Your task to perform on an android device: Search for vegetarian restaurants on Maps Image 0: 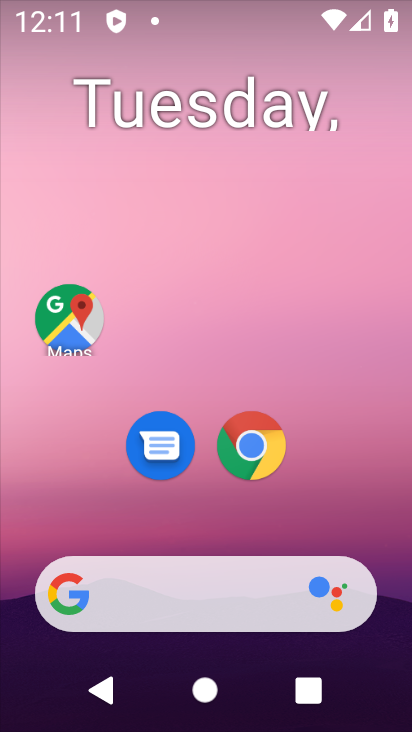
Step 0: drag from (382, 536) to (380, 271)
Your task to perform on an android device: Search for vegetarian restaurants on Maps Image 1: 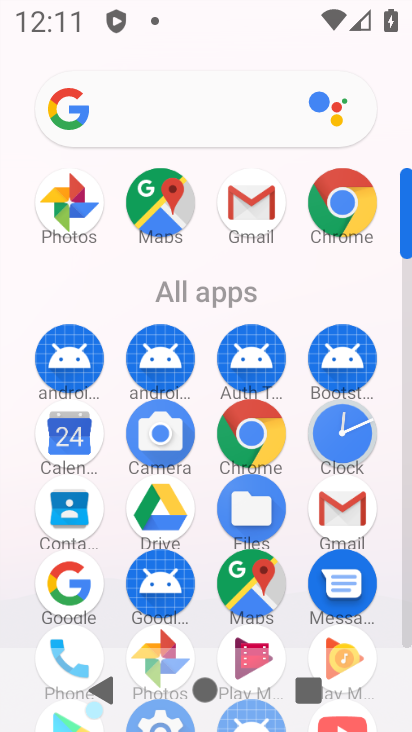
Step 1: drag from (391, 614) to (384, 540)
Your task to perform on an android device: Search for vegetarian restaurants on Maps Image 2: 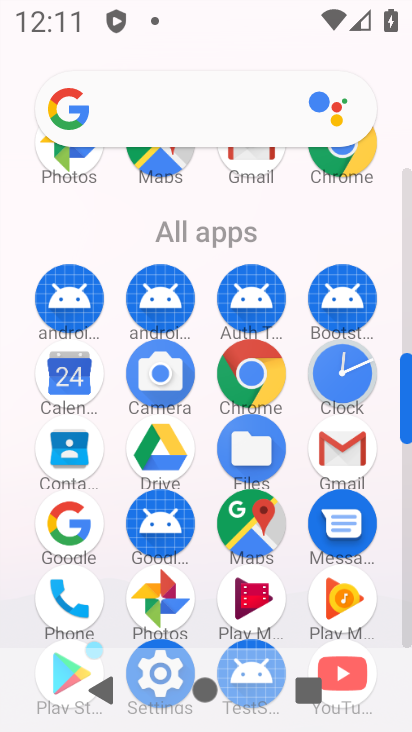
Step 2: drag from (383, 608) to (377, 471)
Your task to perform on an android device: Search for vegetarian restaurants on Maps Image 3: 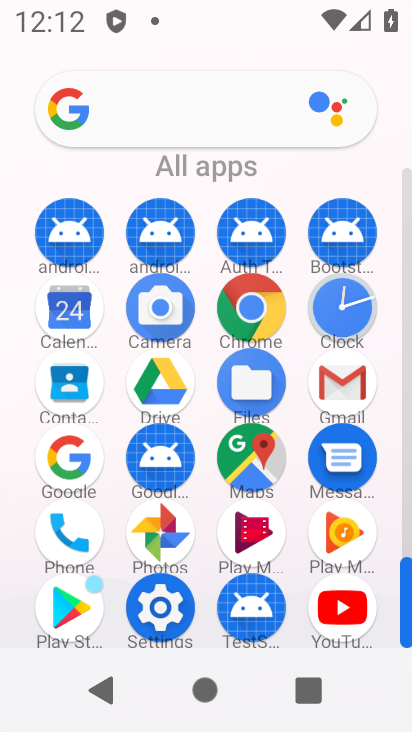
Step 3: click (263, 465)
Your task to perform on an android device: Search for vegetarian restaurants on Maps Image 4: 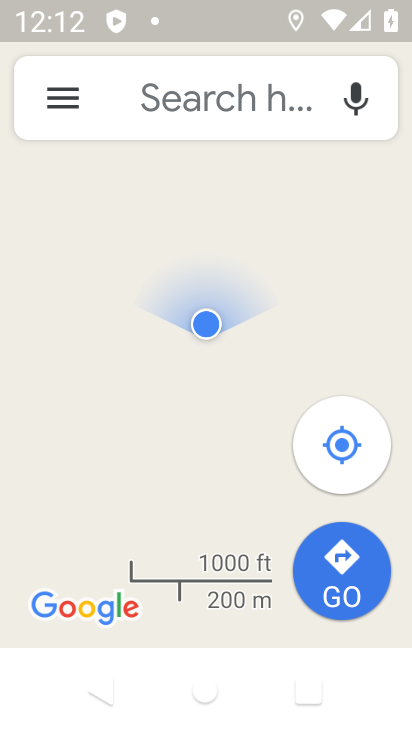
Step 4: click (241, 107)
Your task to perform on an android device: Search for vegetarian restaurants on Maps Image 5: 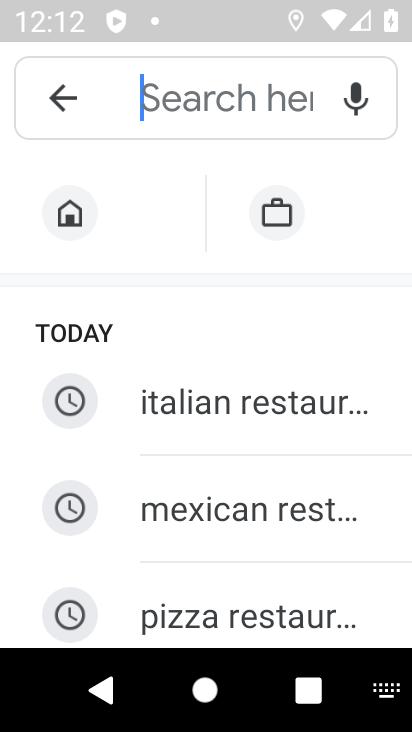
Step 5: type "vegetrain restaurants"
Your task to perform on an android device: Search for vegetarian restaurants on Maps Image 6: 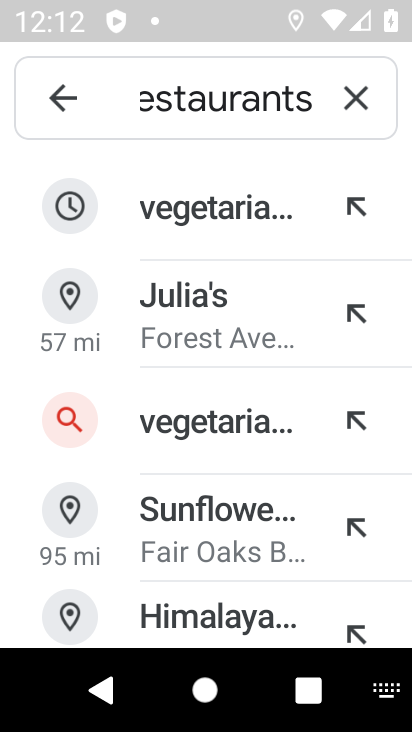
Step 6: click (261, 237)
Your task to perform on an android device: Search for vegetarian restaurants on Maps Image 7: 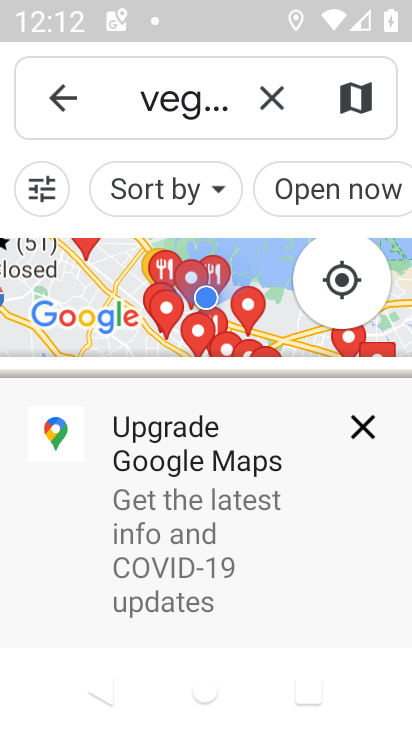
Step 7: task complete